Your task to perform on an android device: Open calendar and show me the first week of next month Image 0: 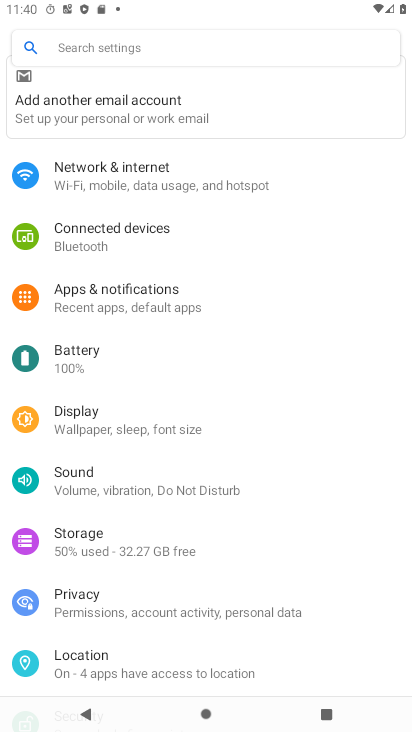
Step 0: press home button
Your task to perform on an android device: Open calendar and show me the first week of next month Image 1: 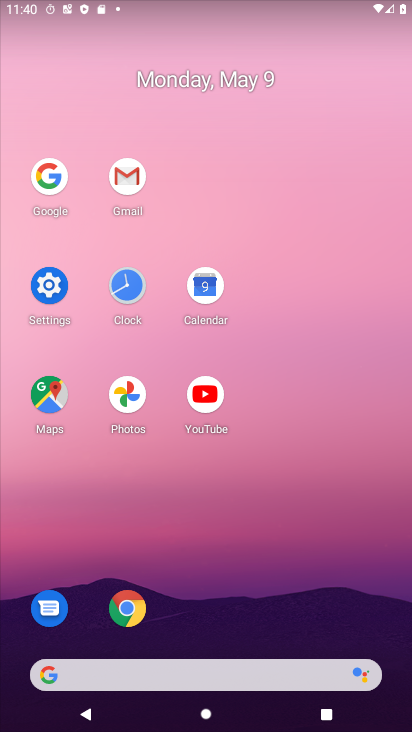
Step 1: click (202, 291)
Your task to perform on an android device: Open calendar and show me the first week of next month Image 2: 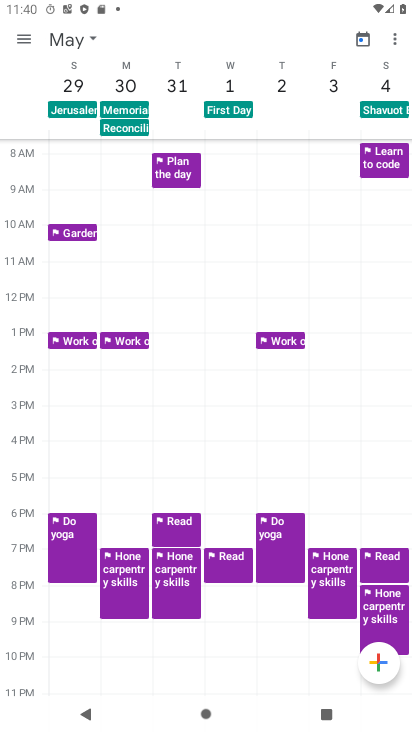
Step 2: task complete